Your task to perform on an android device: Toggle the flashlight Image 0: 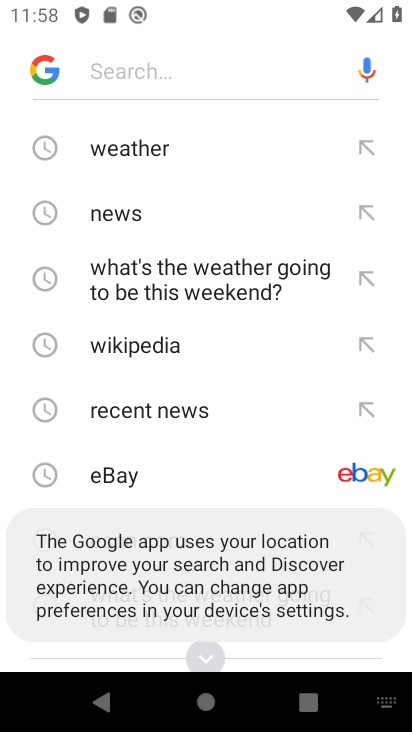
Step 0: press back button
Your task to perform on an android device: Toggle the flashlight Image 1: 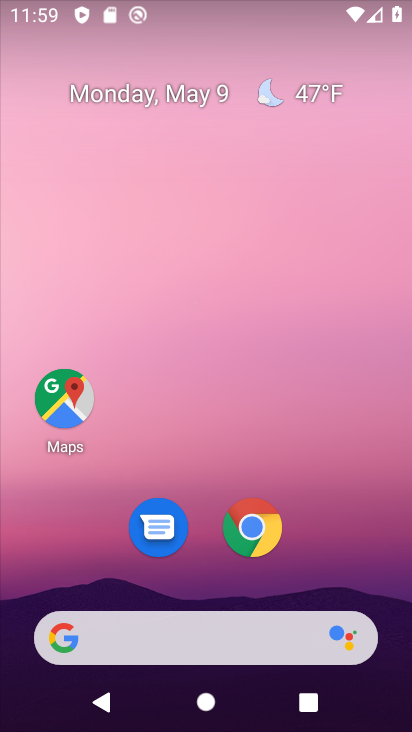
Step 1: task complete